Your task to perform on an android device: Go to eBay Image 0: 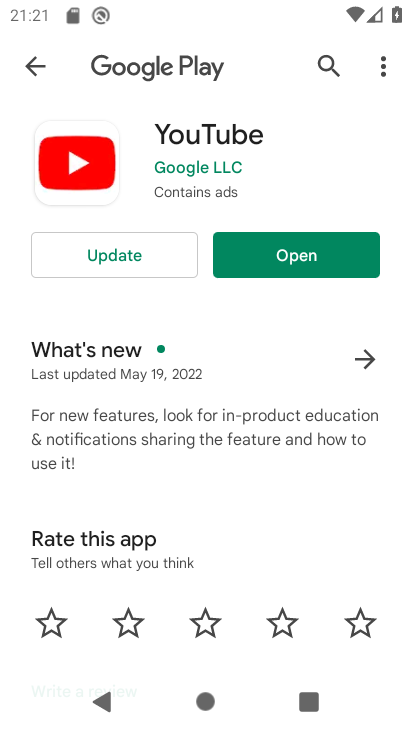
Step 0: press home button
Your task to perform on an android device: Go to eBay Image 1: 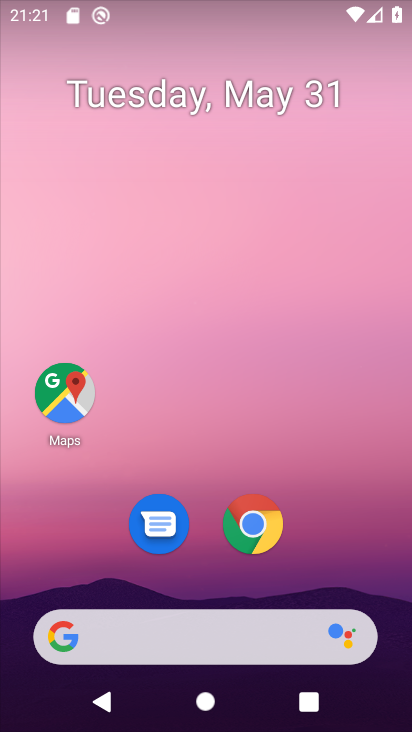
Step 1: click (266, 644)
Your task to perform on an android device: Go to eBay Image 2: 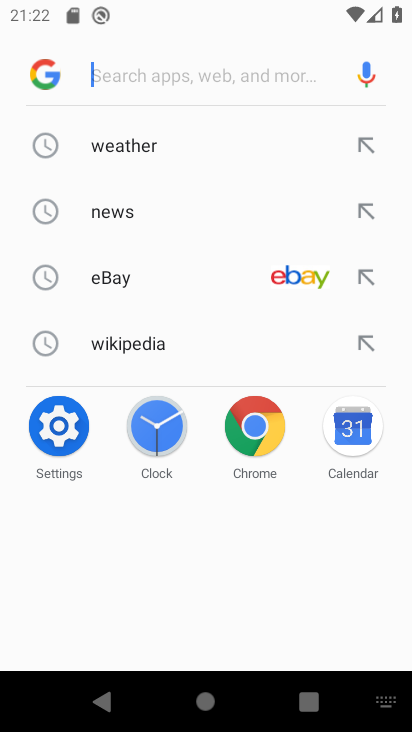
Step 2: click (118, 275)
Your task to perform on an android device: Go to eBay Image 3: 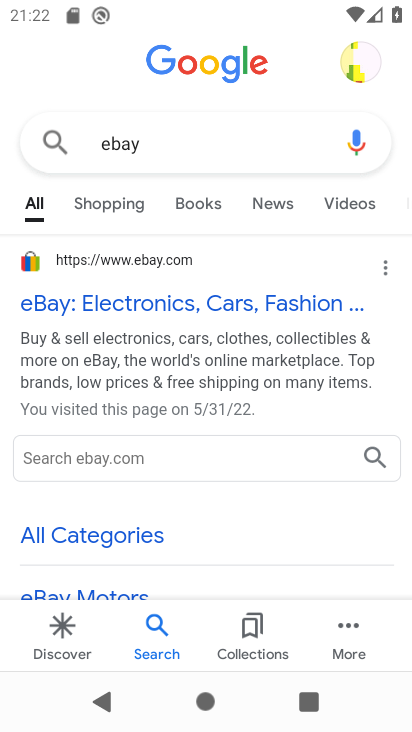
Step 3: click (62, 297)
Your task to perform on an android device: Go to eBay Image 4: 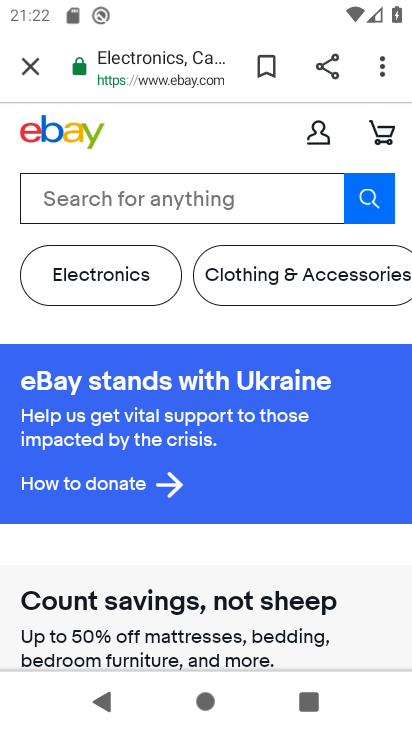
Step 4: task complete